Your task to perform on an android device: See recent photos Image 0: 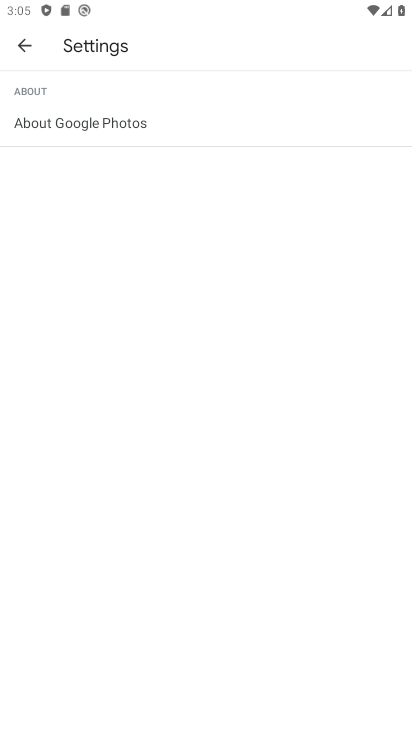
Step 0: press home button
Your task to perform on an android device: See recent photos Image 1: 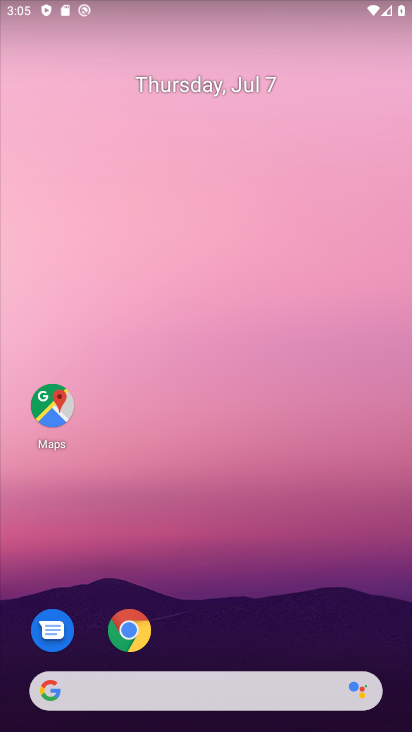
Step 1: drag from (357, 625) to (353, 144)
Your task to perform on an android device: See recent photos Image 2: 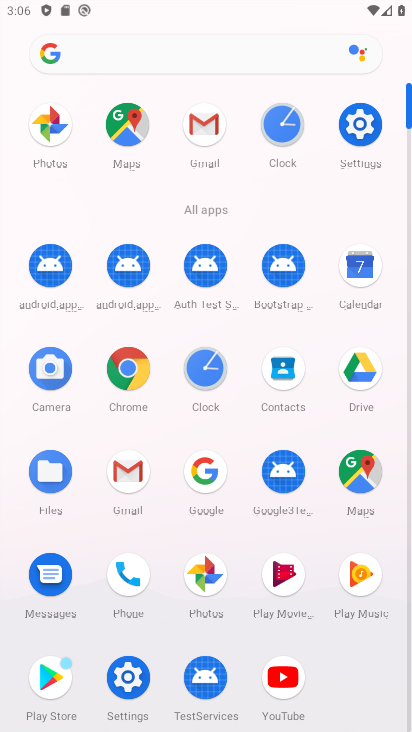
Step 2: click (213, 579)
Your task to perform on an android device: See recent photos Image 3: 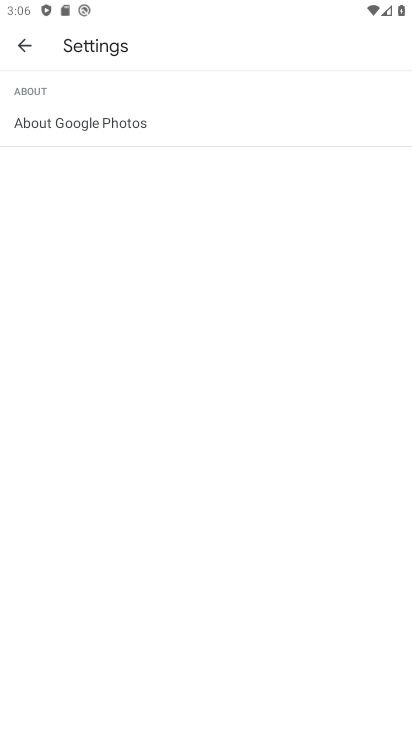
Step 3: press back button
Your task to perform on an android device: See recent photos Image 4: 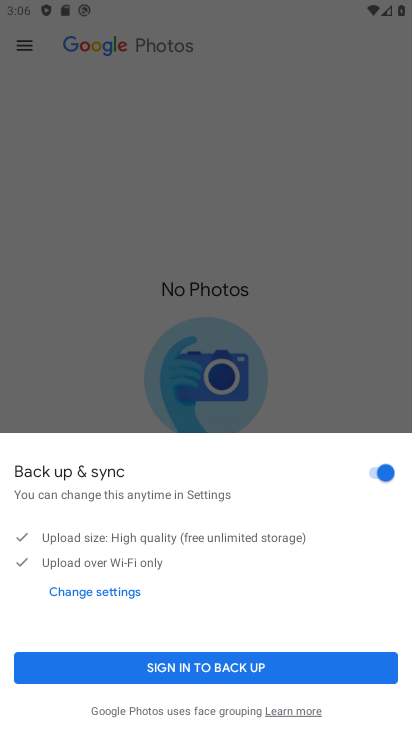
Step 4: click (380, 472)
Your task to perform on an android device: See recent photos Image 5: 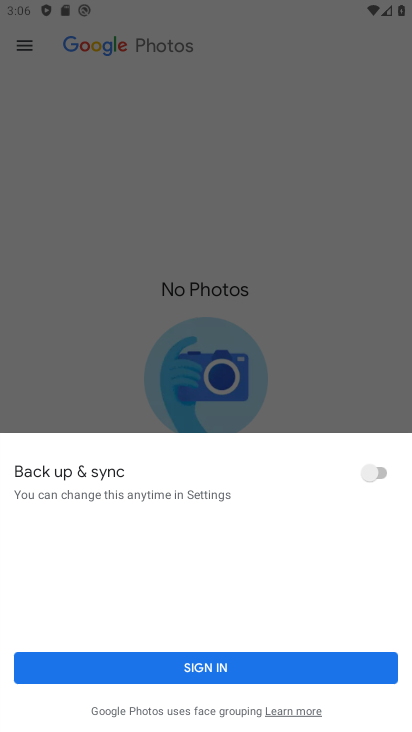
Step 5: click (326, 366)
Your task to perform on an android device: See recent photos Image 6: 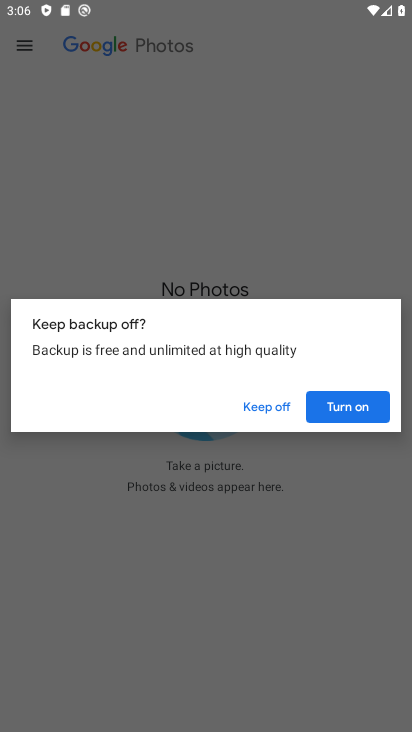
Step 6: click (283, 411)
Your task to perform on an android device: See recent photos Image 7: 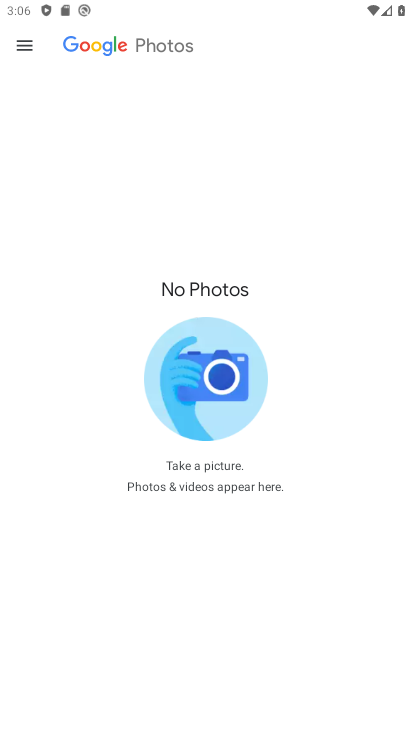
Step 7: task complete